Your task to perform on an android device: uninstall "DoorDash - Dasher" Image 0: 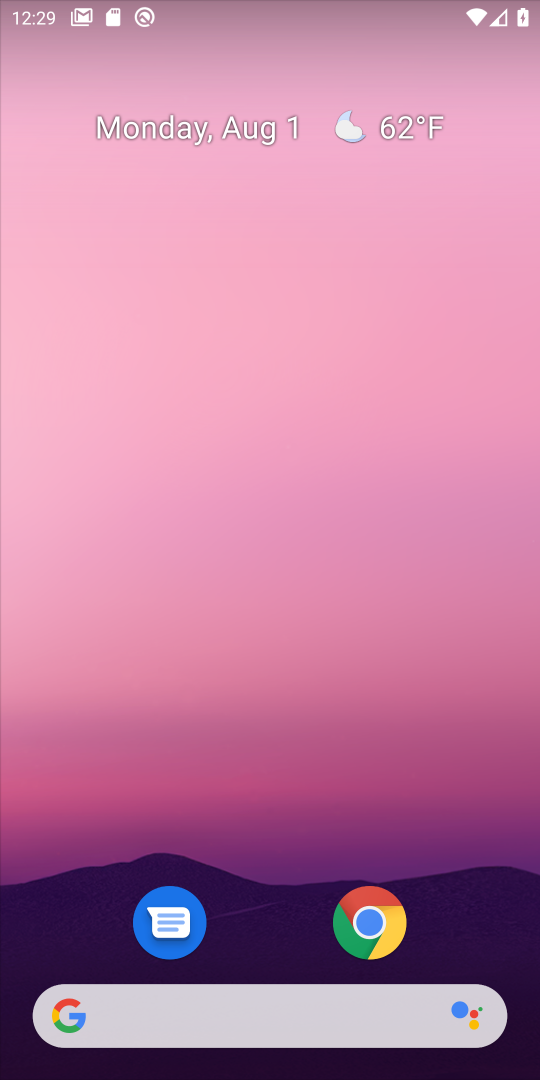
Step 0: drag from (271, 897) to (206, 151)
Your task to perform on an android device: uninstall "DoorDash - Dasher" Image 1: 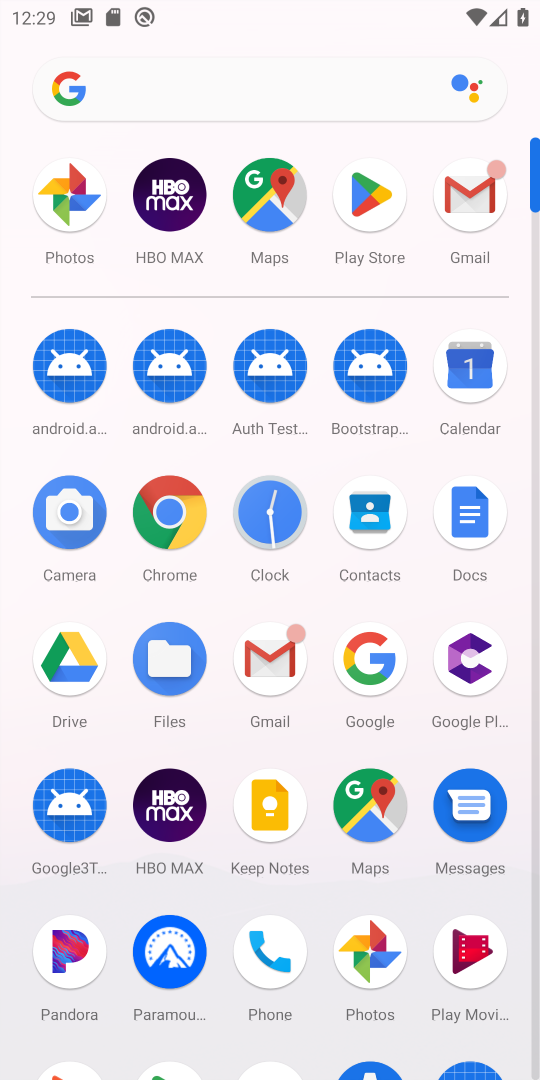
Step 1: click (390, 192)
Your task to perform on an android device: uninstall "DoorDash - Dasher" Image 2: 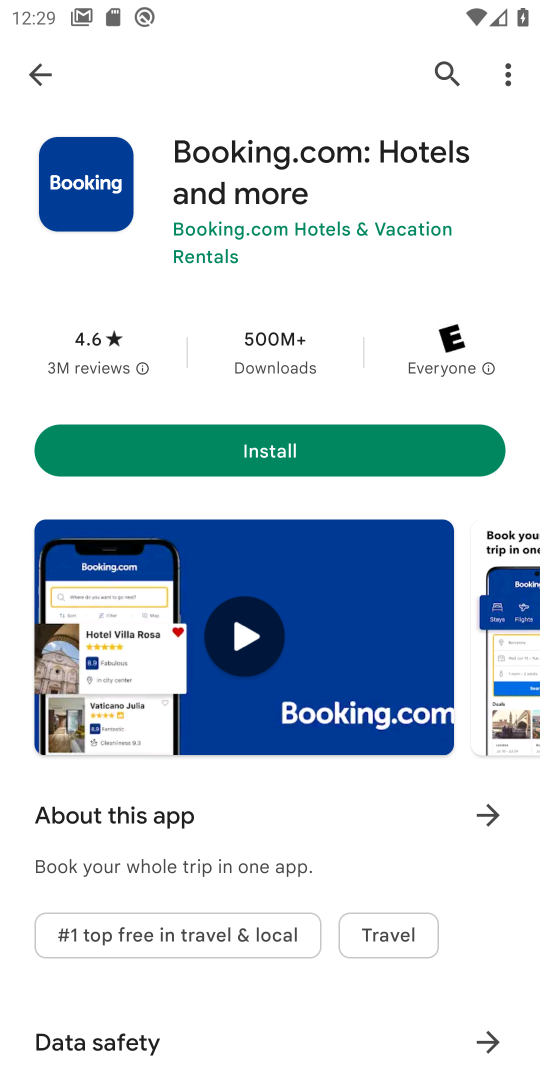
Step 2: click (444, 66)
Your task to perform on an android device: uninstall "DoorDash - Dasher" Image 3: 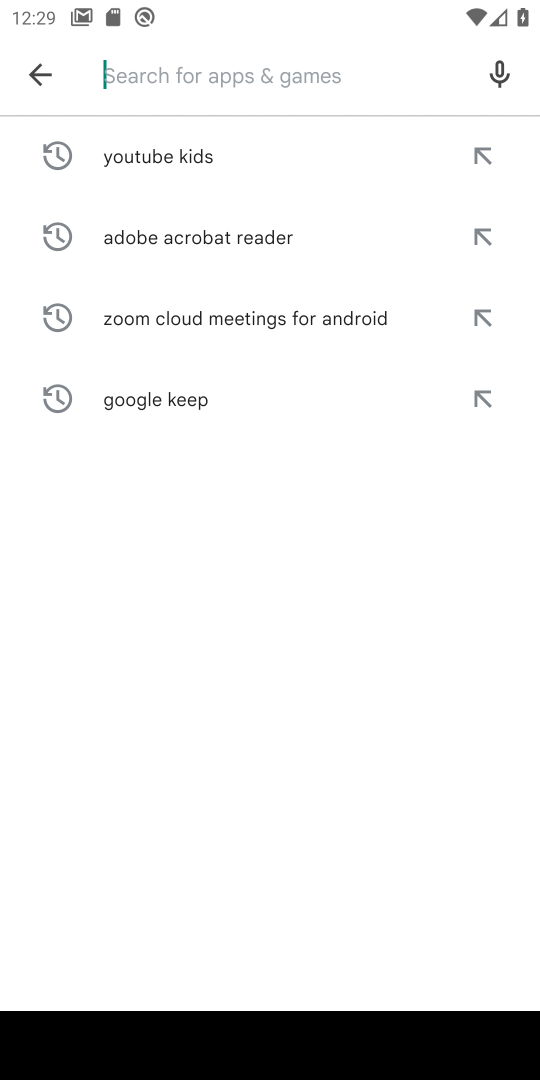
Step 3: type "DoorDash - Dasher"
Your task to perform on an android device: uninstall "DoorDash - Dasher" Image 4: 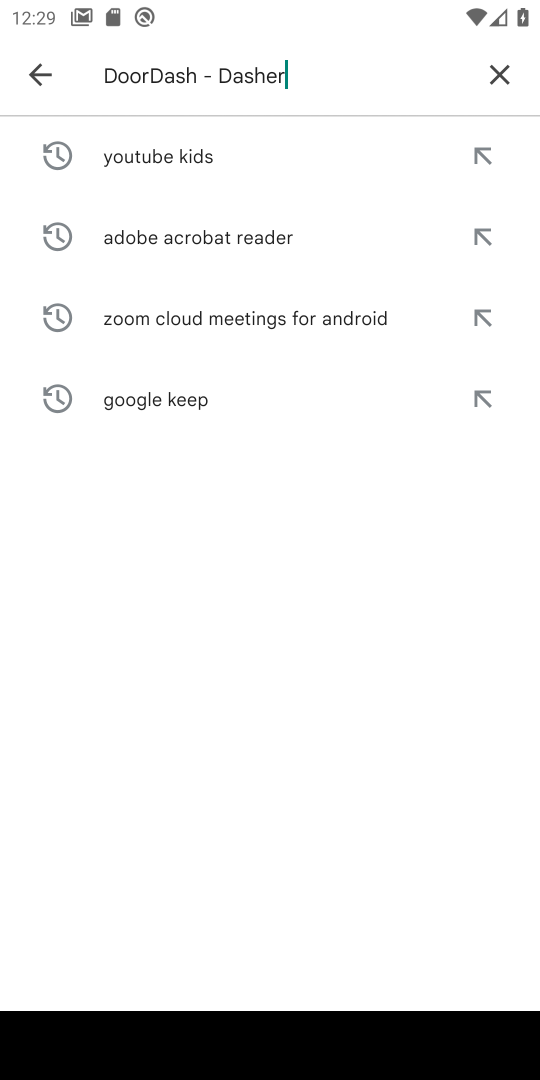
Step 4: type ""
Your task to perform on an android device: uninstall "DoorDash - Dasher" Image 5: 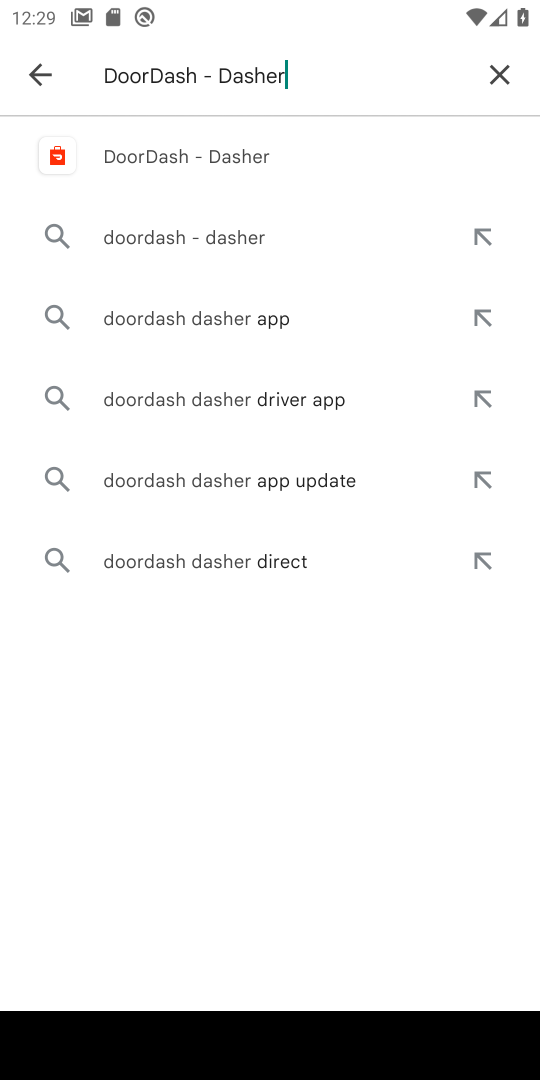
Step 5: click (176, 156)
Your task to perform on an android device: uninstall "DoorDash - Dasher" Image 6: 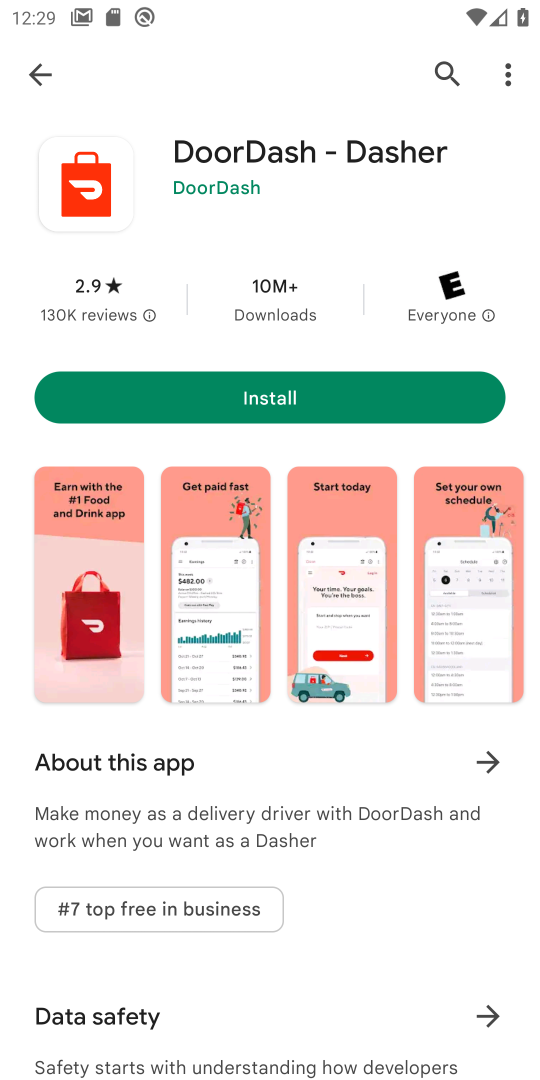
Step 6: task complete